Your task to perform on an android device: Open Yahoo.com Image 0: 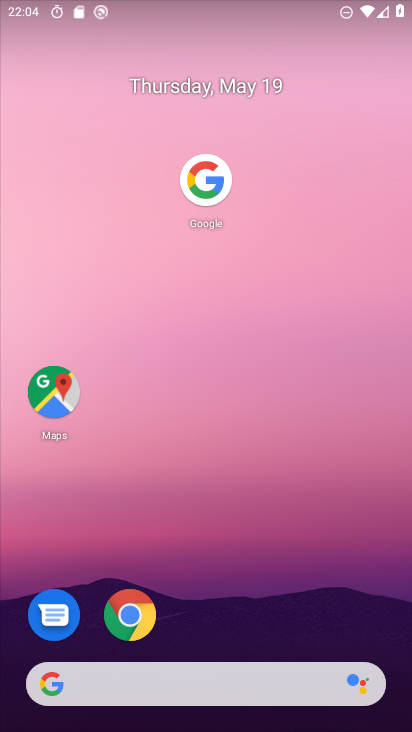
Step 0: click (118, 611)
Your task to perform on an android device: Open Yahoo.com Image 1: 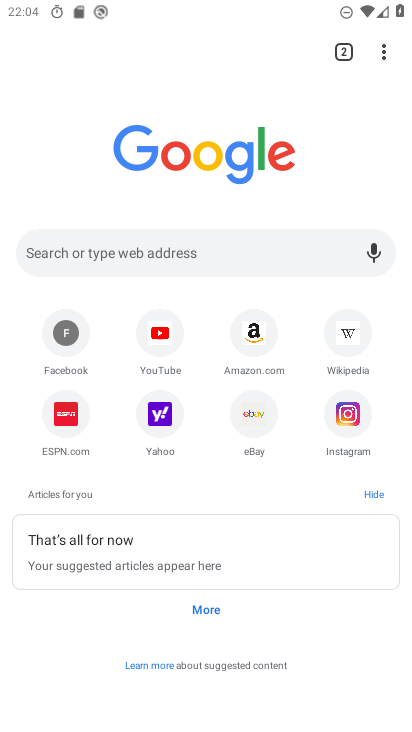
Step 1: click (164, 409)
Your task to perform on an android device: Open Yahoo.com Image 2: 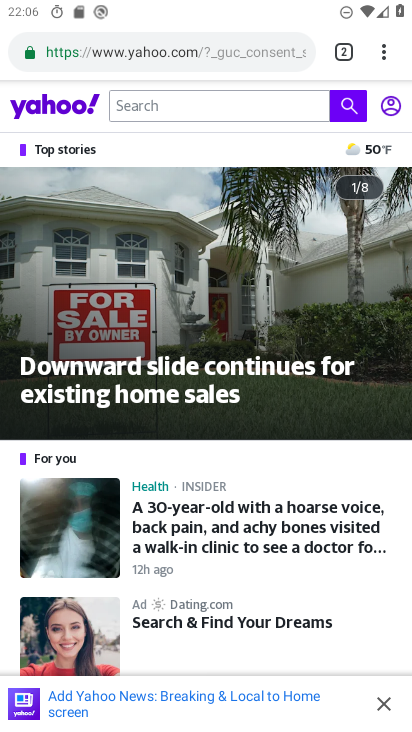
Step 2: task complete